Your task to perform on an android device: check battery use Image 0: 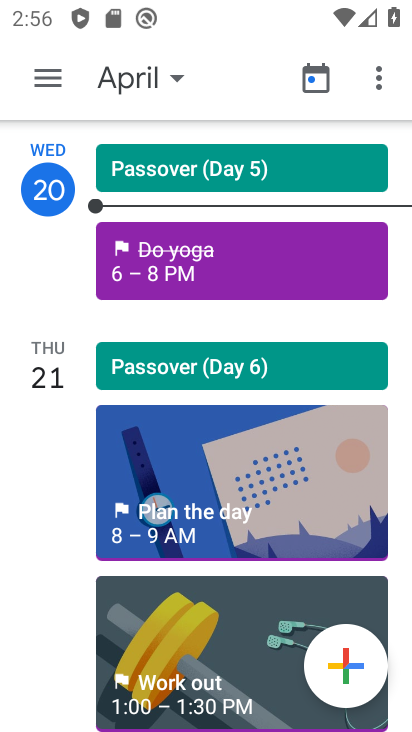
Step 0: press home button
Your task to perform on an android device: check battery use Image 1: 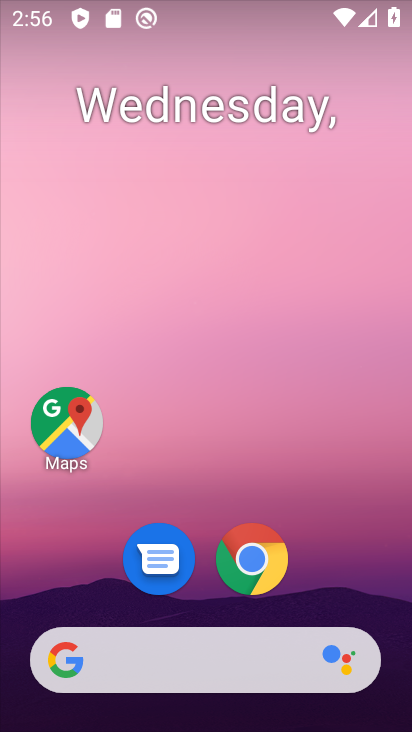
Step 1: drag from (369, 342) to (363, 191)
Your task to perform on an android device: check battery use Image 2: 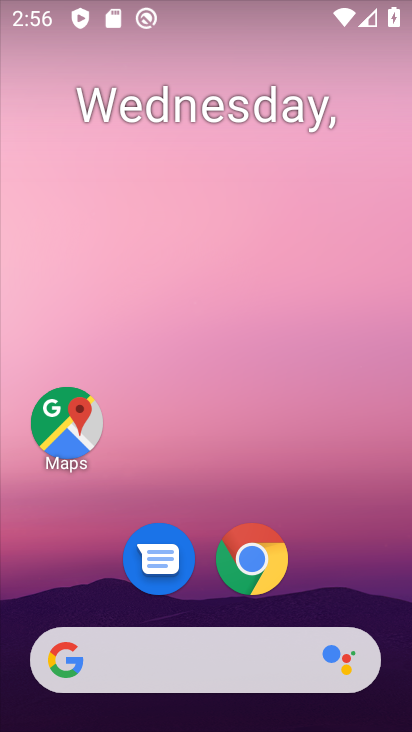
Step 2: drag from (362, 514) to (361, 133)
Your task to perform on an android device: check battery use Image 3: 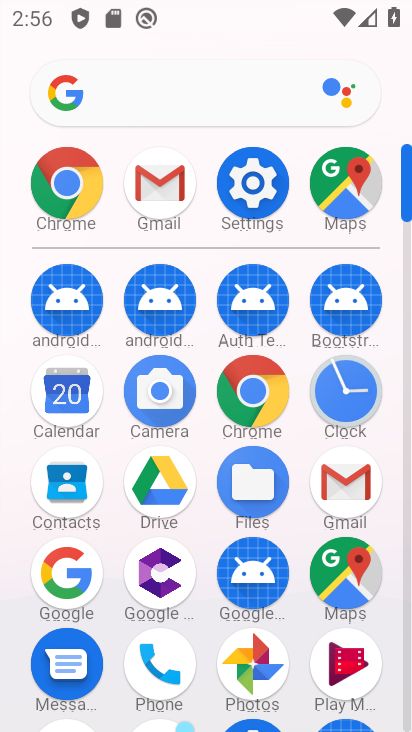
Step 3: click (242, 192)
Your task to perform on an android device: check battery use Image 4: 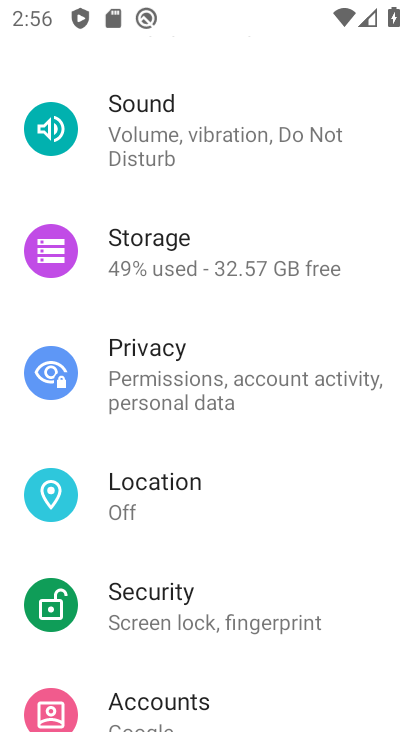
Step 4: drag from (316, 566) to (314, 247)
Your task to perform on an android device: check battery use Image 5: 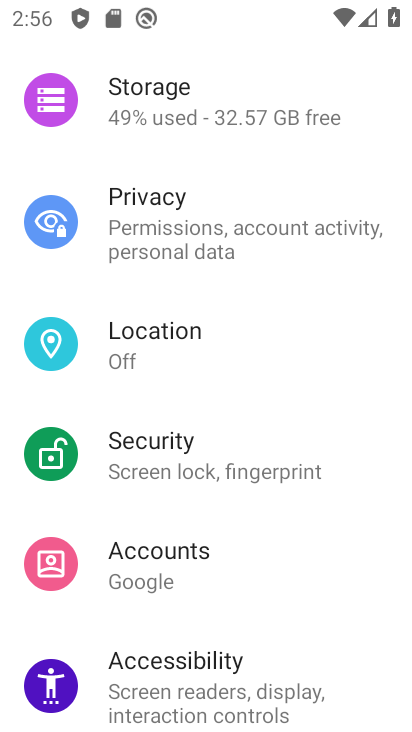
Step 5: drag from (239, 465) to (239, 263)
Your task to perform on an android device: check battery use Image 6: 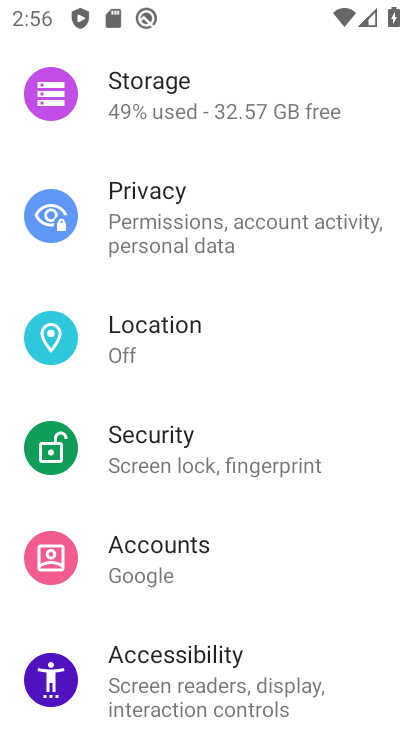
Step 6: drag from (255, 616) to (256, 300)
Your task to perform on an android device: check battery use Image 7: 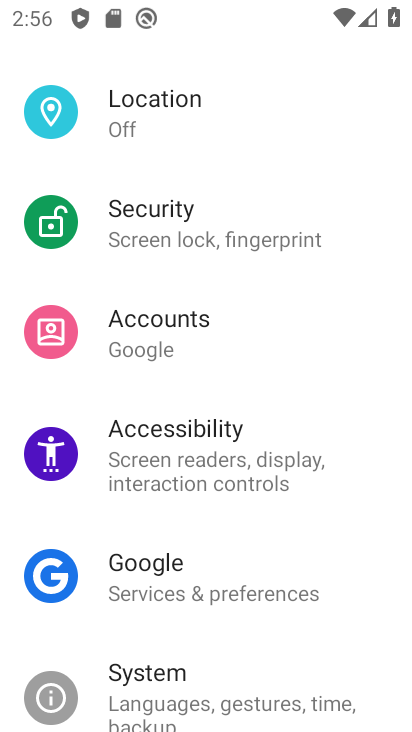
Step 7: drag from (283, 315) to (284, 655)
Your task to perform on an android device: check battery use Image 8: 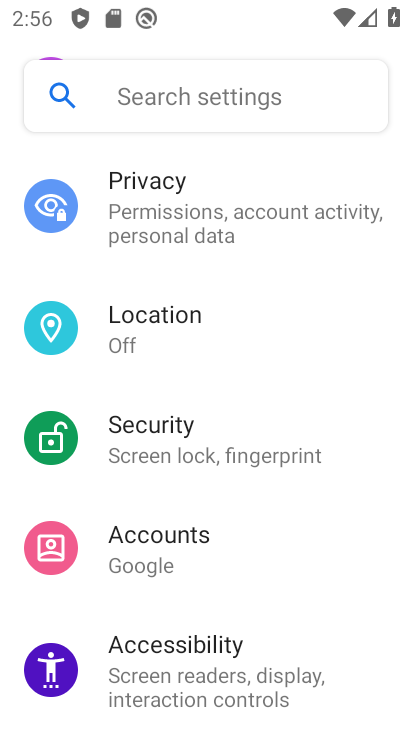
Step 8: drag from (303, 253) to (293, 609)
Your task to perform on an android device: check battery use Image 9: 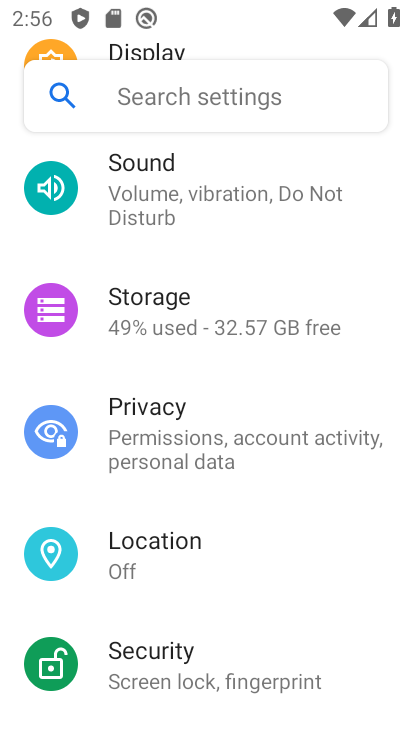
Step 9: drag from (301, 253) to (270, 603)
Your task to perform on an android device: check battery use Image 10: 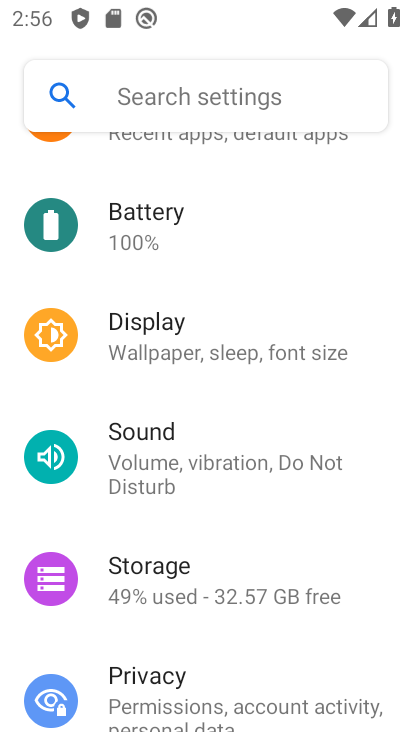
Step 10: click (175, 226)
Your task to perform on an android device: check battery use Image 11: 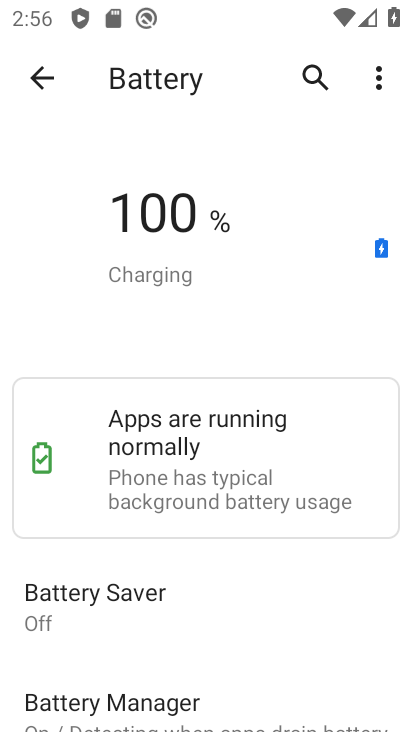
Step 11: click (372, 95)
Your task to perform on an android device: check battery use Image 12: 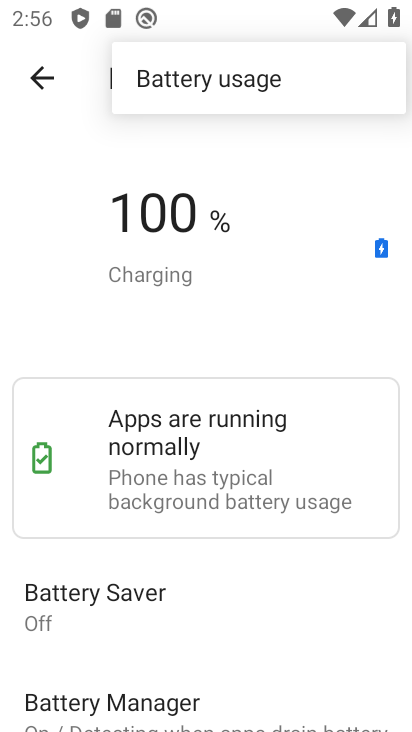
Step 12: click (237, 88)
Your task to perform on an android device: check battery use Image 13: 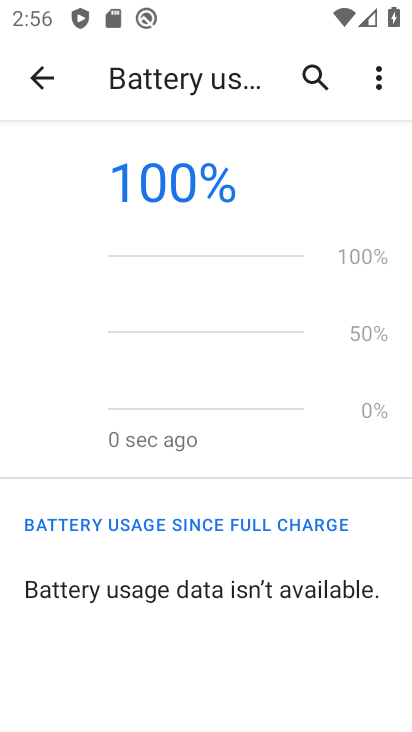
Step 13: task complete